Your task to perform on an android device: Go to accessibility settings Image 0: 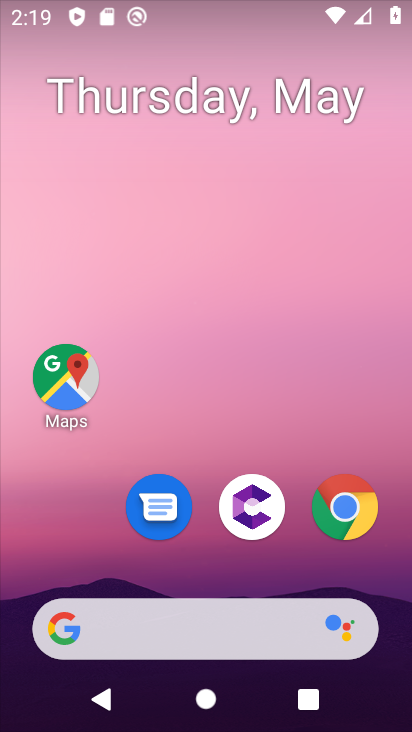
Step 0: press home button
Your task to perform on an android device: Go to accessibility settings Image 1: 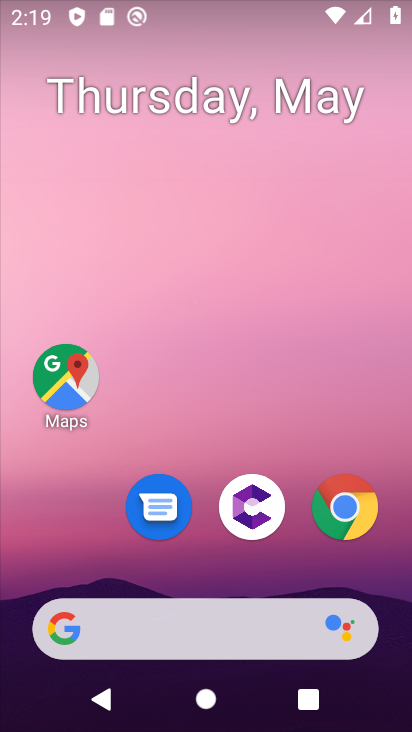
Step 1: drag from (330, 554) to (345, 65)
Your task to perform on an android device: Go to accessibility settings Image 2: 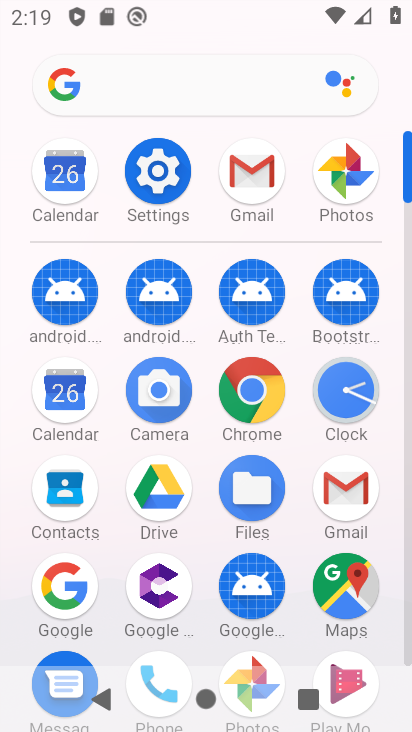
Step 2: click (170, 186)
Your task to perform on an android device: Go to accessibility settings Image 3: 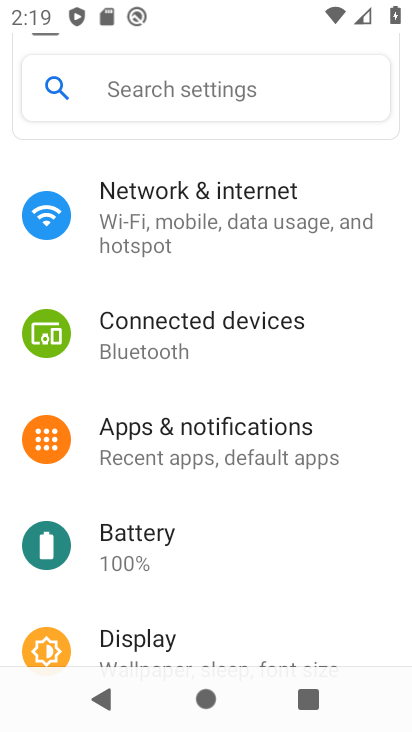
Step 3: drag from (308, 596) to (312, 252)
Your task to perform on an android device: Go to accessibility settings Image 4: 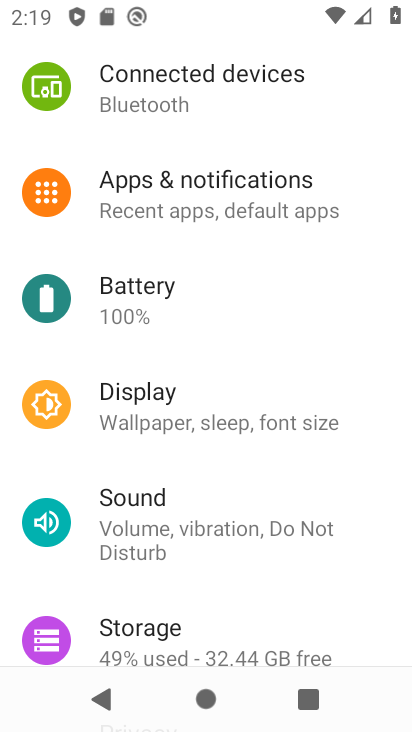
Step 4: drag from (228, 628) to (233, 176)
Your task to perform on an android device: Go to accessibility settings Image 5: 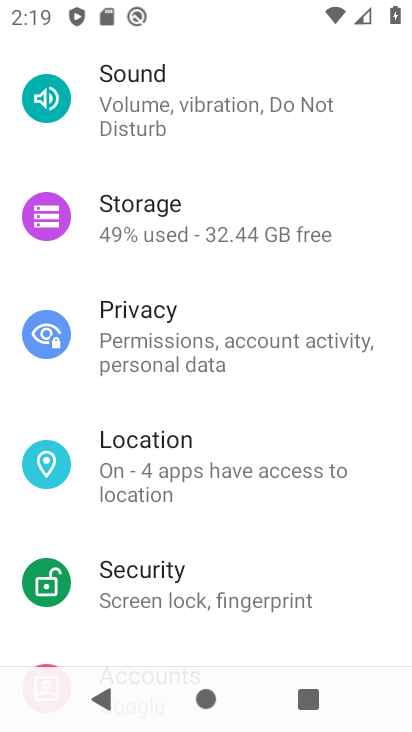
Step 5: drag from (260, 552) to (249, 132)
Your task to perform on an android device: Go to accessibility settings Image 6: 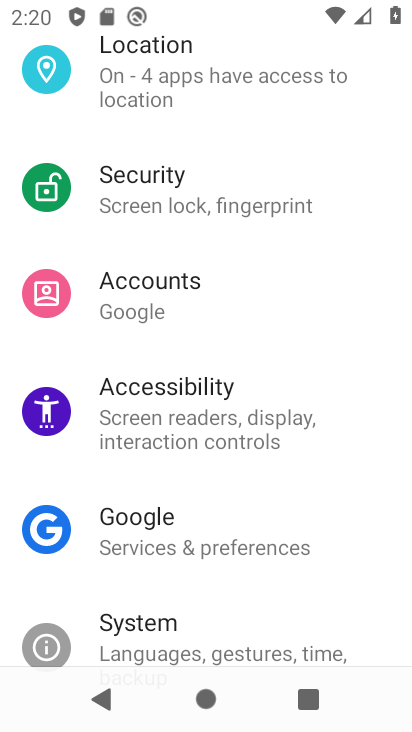
Step 6: click (147, 396)
Your task to perform on an android device: Go to accessibility settings Image 7: 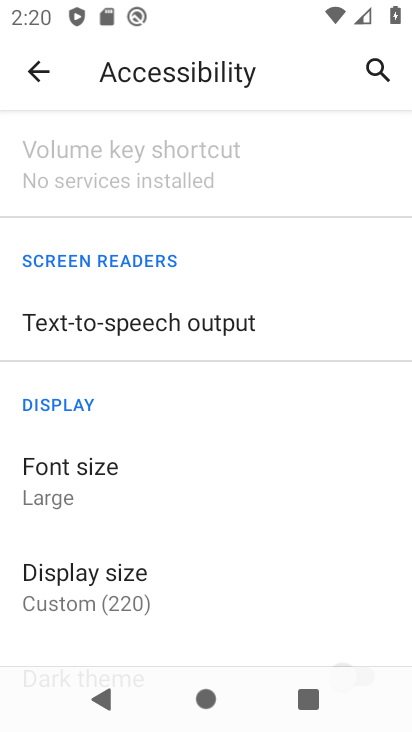
Step 7: task complete